Your task to perform on an android device: move a message to another label in the gmail app Image 0: 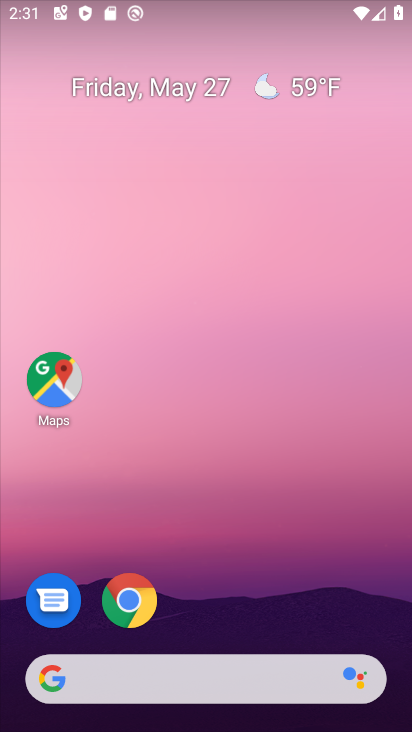
Step 0: drag from (249, 605) to (205, 122)
Your task to perform on an android device: move a message to another label in the gmail app Image 1: 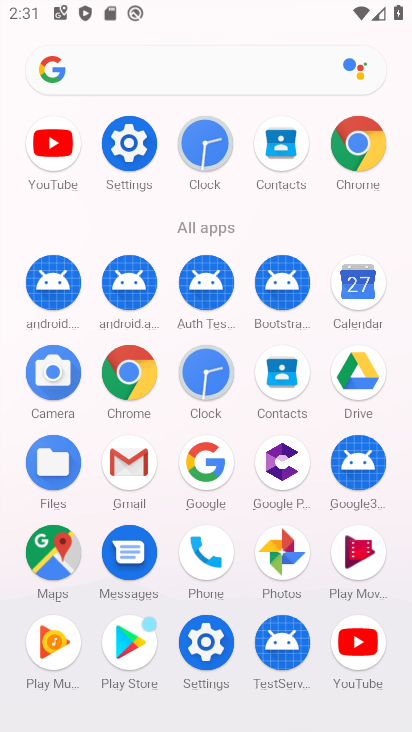
Step 1: click (128, 463)
Your task to perform on an android device: move a message to another label in the gmail app Image 2: 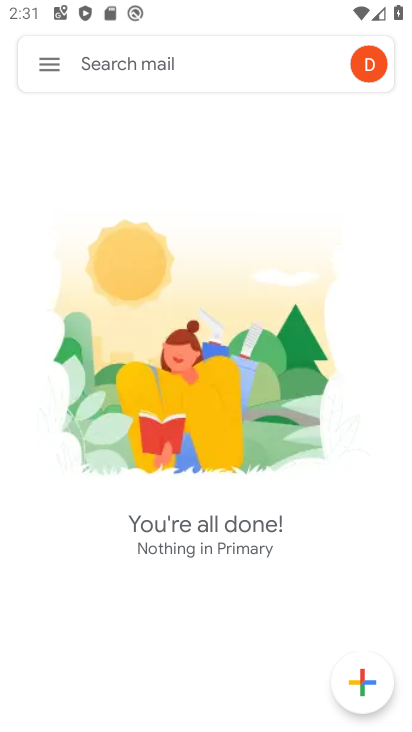
Step 2: click (49, 58)
Your task to perform on an android device: move a message to another label in the gmail app Image 3: 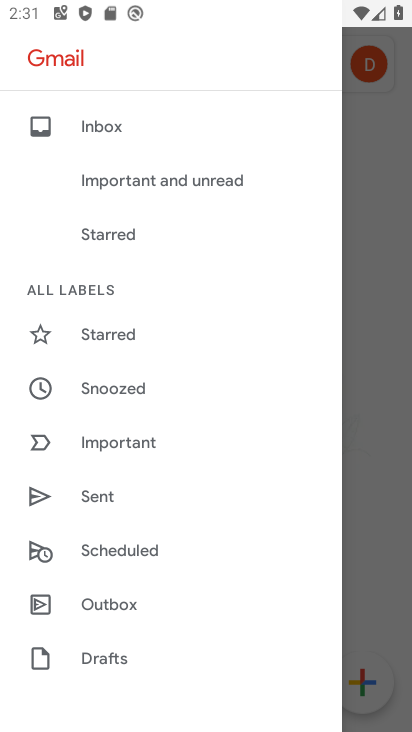
Step 3: click (109, 146)
Your task to perform on an android device: move a message to another label in the gmail app Image 4: 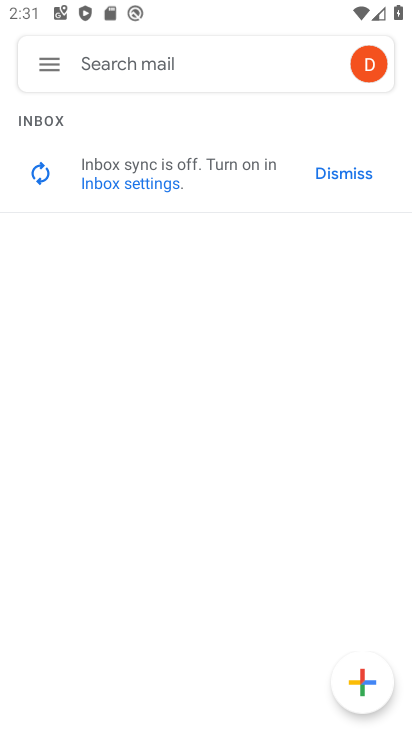
Step 4: click (53, 72)
Your task to perform on an android device: move a message to another label in the gmail app Image 5: 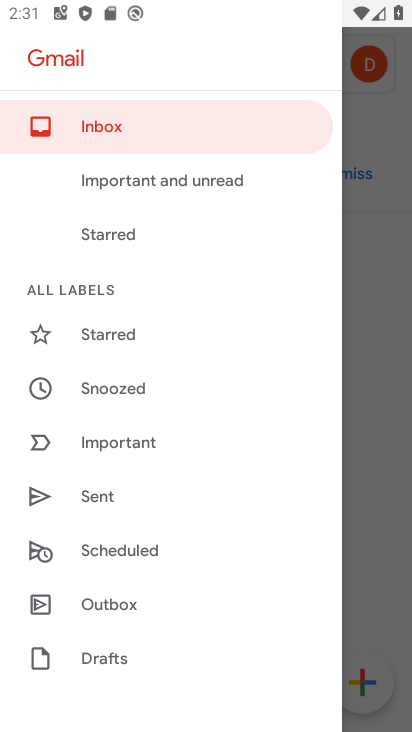
Step 5: drag from (135, 478) to (126, 340)
Your task to perform on an android device: move a message to another label in the gmail app Image 6: 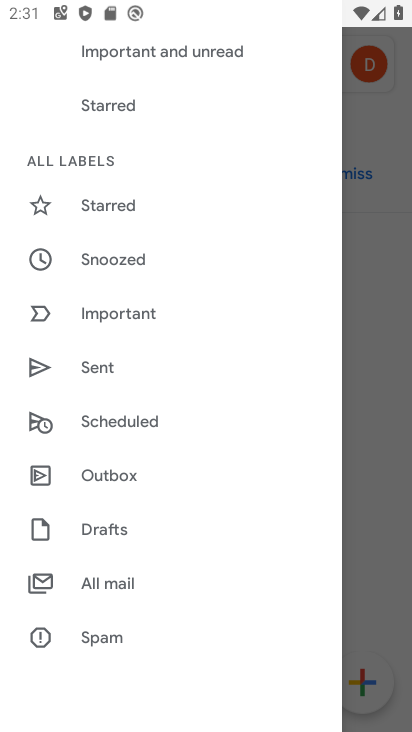
Step 6: drag from (109, 454) to (108, 328)
Your task to perform on an android device: move a message to another label in the gmail app Image 7: 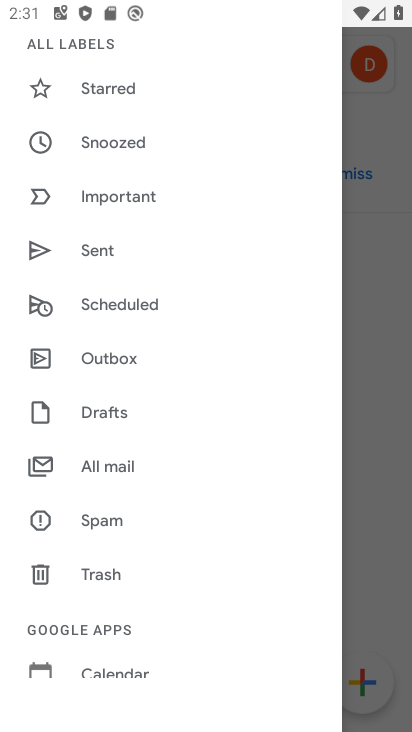
Step 7: click (121, 469)
Your task to perform on an android device: move a message to another label in the gmail app Image 8: 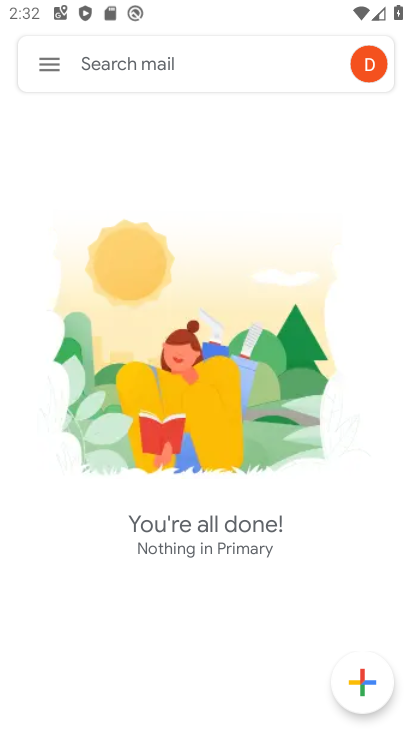
Step 8: task complete